Your task to perform on an android device: What's the news? Image 0: 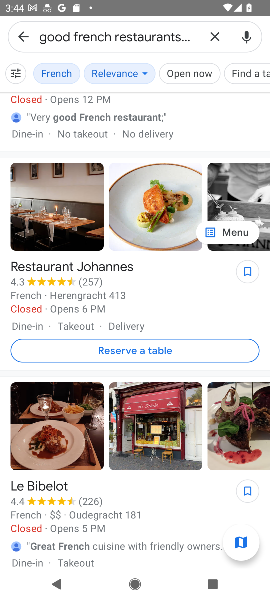
Step 0: press home button
Your task to perform on an android device: What's the news? Image 1: 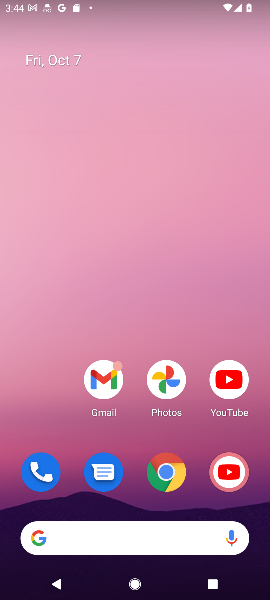
Step 1: click (165, 471)
Your task to perform on an android device: What's the news? Image 2: 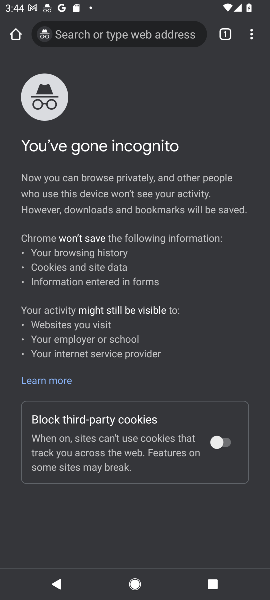
Step 2: click (252, 36)
Your task to perform on an android device: What's the news? Image 3: 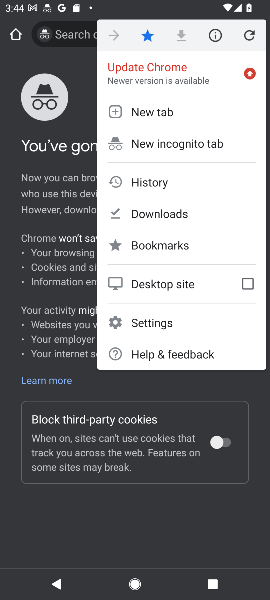
Step 3: click (160, 111)
Your task to perform on an android device: What's the news? Image 4: 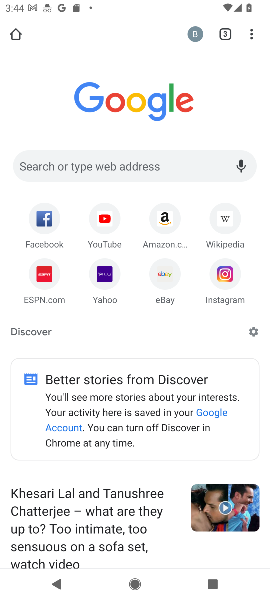
Step 4: click (120, 165)
Your task to perform on an android device: What's the news? Image 5: 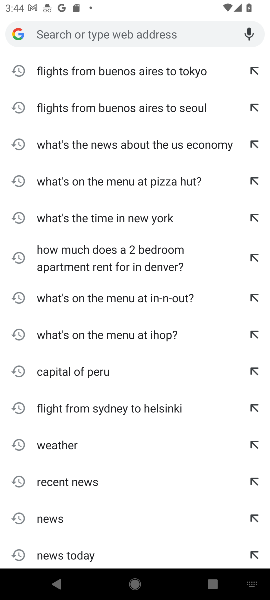
Step 5: type "What's the news?"
Your task to perform on an android device: What's the news? Image 6: 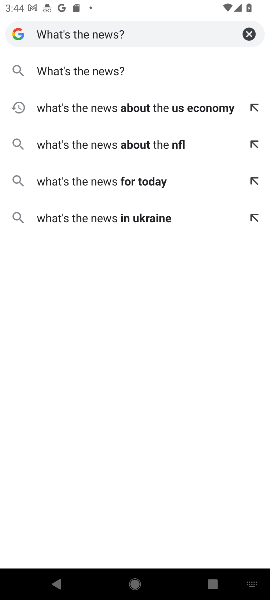
Step 6: click (93, 75)
Your task to perform on an android device: What's the news? Image 7: 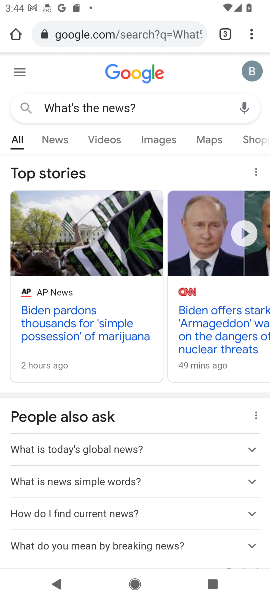
Step 7: task complete